Your task to perform on an android device: Open the web browser Image 0: 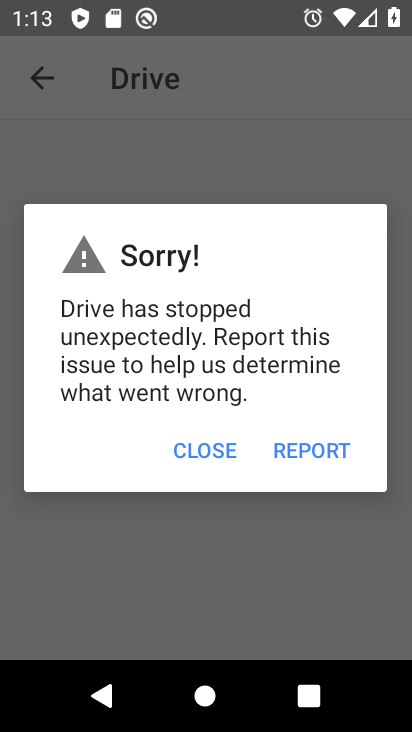
Step 0: press home button
Your task to perform on an android device: Open the web browser Image 1: 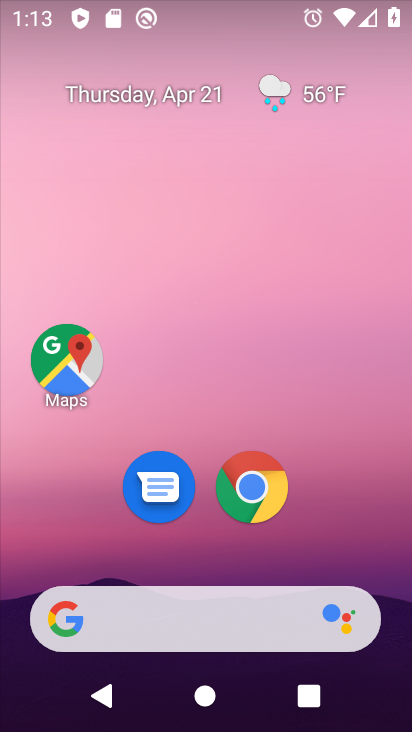
Step 1: click (251, 491)
Your task to perform on an android device: Open the web browser Image 2: 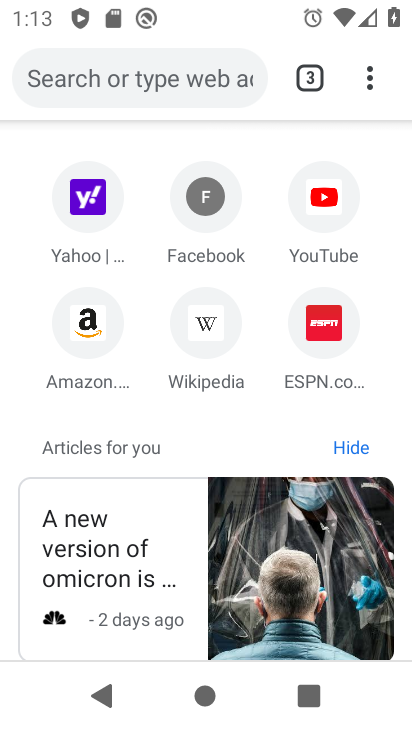
Step 2: task complete